Your task to perform on an android device: Do I have any events today? Image 0: 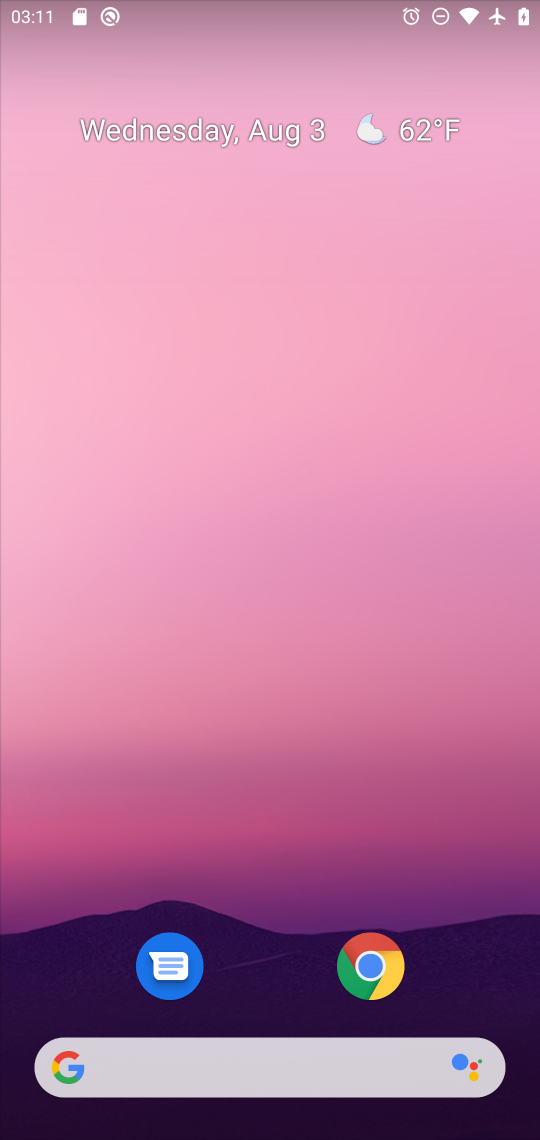
Step 0: drag from (264, 975) to (282, 297)
Your task to perform on an android device: Do I have any events today? Image 1: 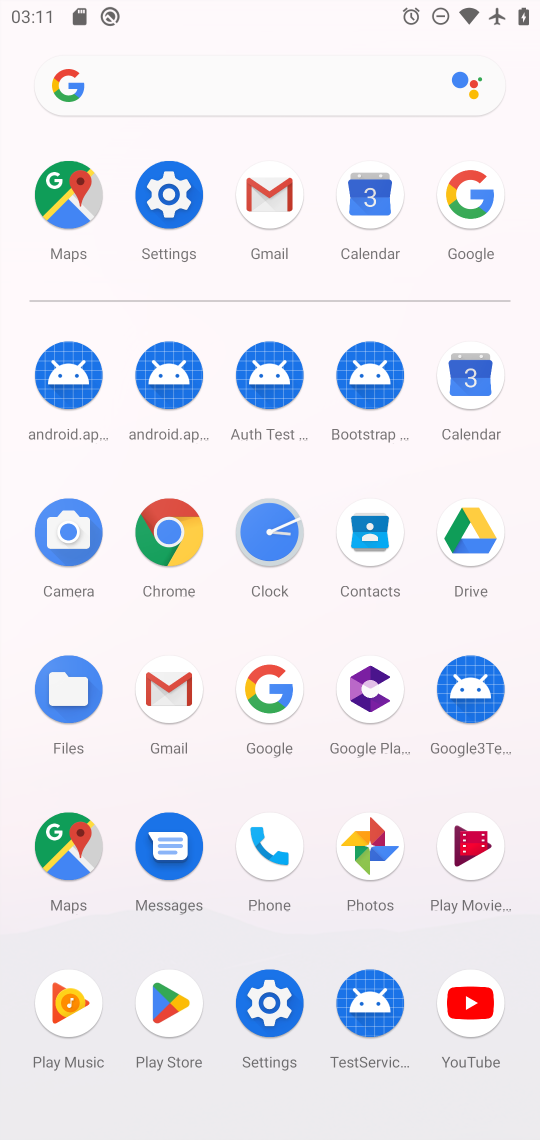
Step 1: click (354, 220)
Your task to perform on an android device: Do I have any events today? Image 2: 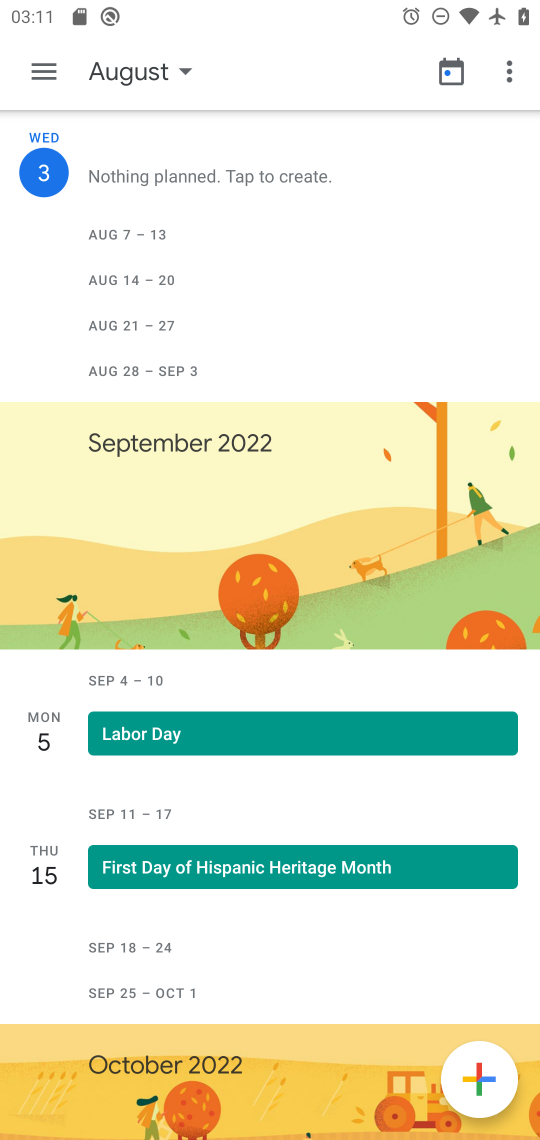
Step 2: click (188, 75)
Your task to perform on an android device: Do I have any events today? Image 3: 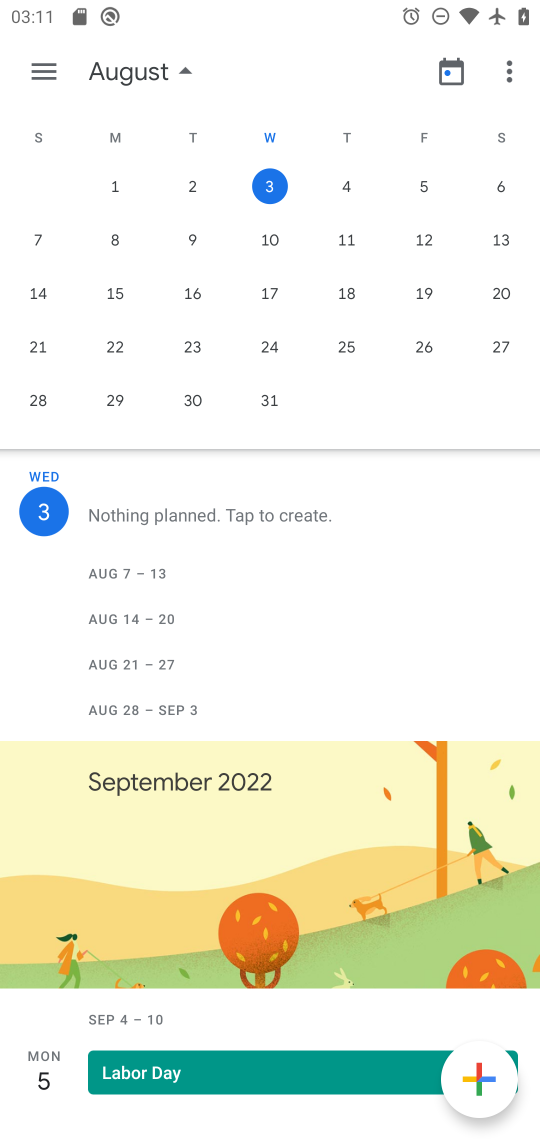
Step 3: task complete